Your task to perform on an android device: find snoozed emails in the gmail app Image 0: 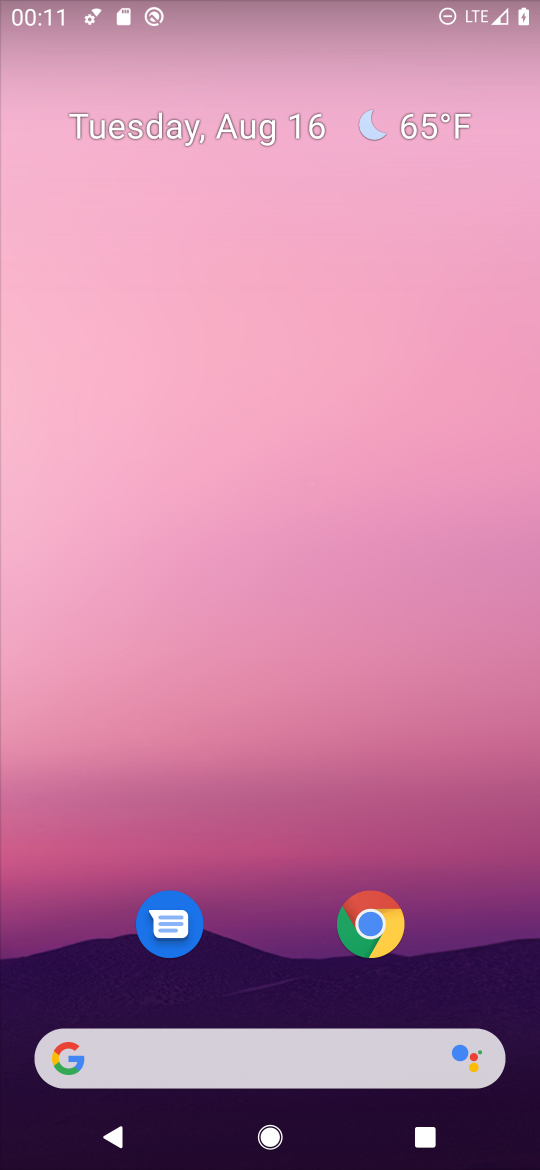
Step 0: drag from (292, 924) to (258, 257)
Your task to perform on an android device: find snoozed emails in the gmail app Image 1: 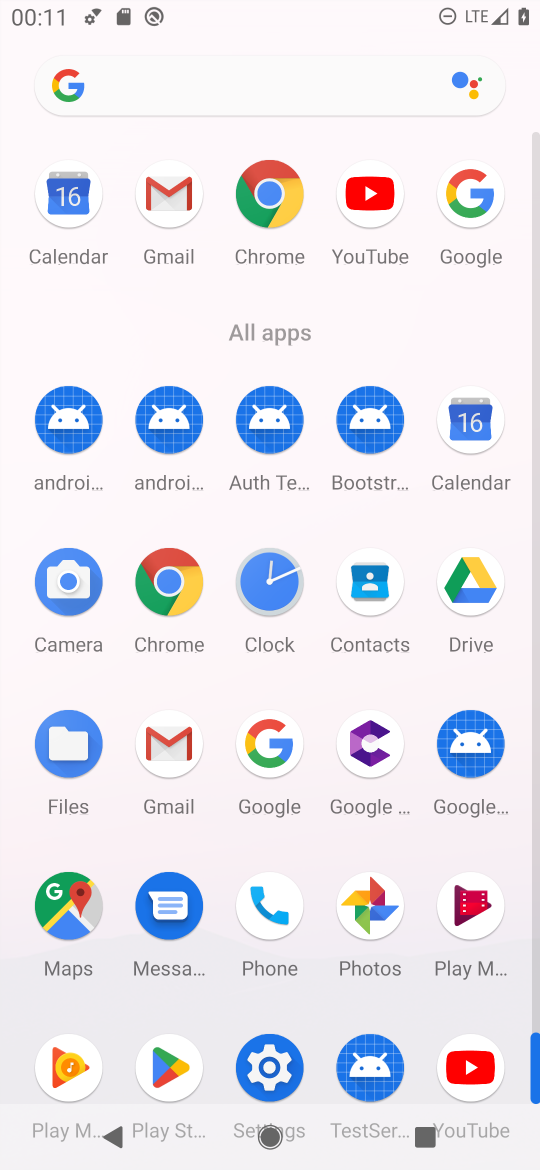
Step 1: click (156, 773)
Your task to perform on an android device: find snoozed emails in the gmail app Image 2: 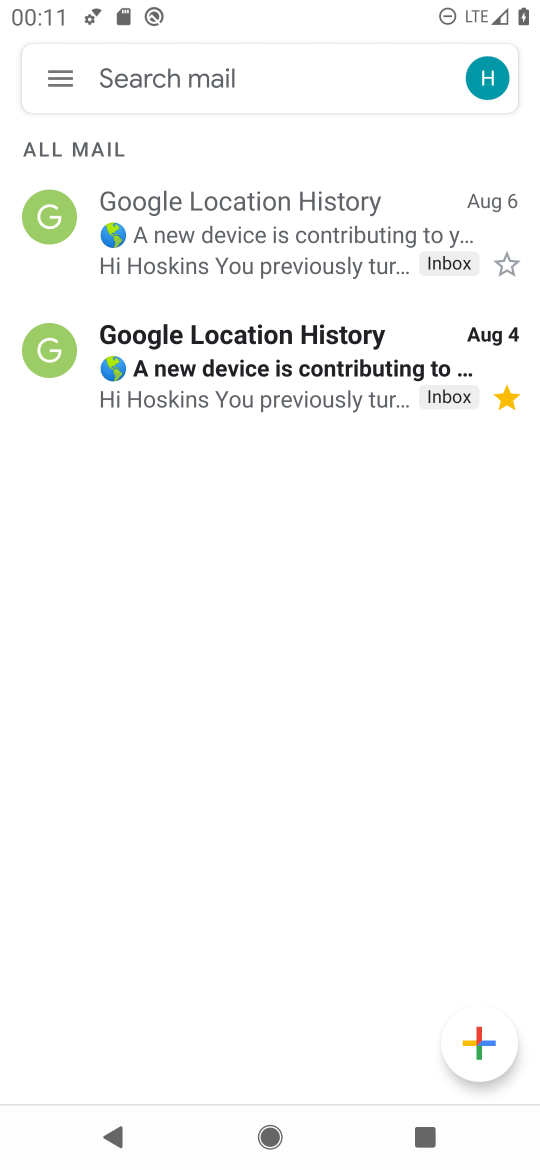
Step 2: click (47, 65)
Your task to perform on an android device: find snoozed emails in the gmail app Image 3: 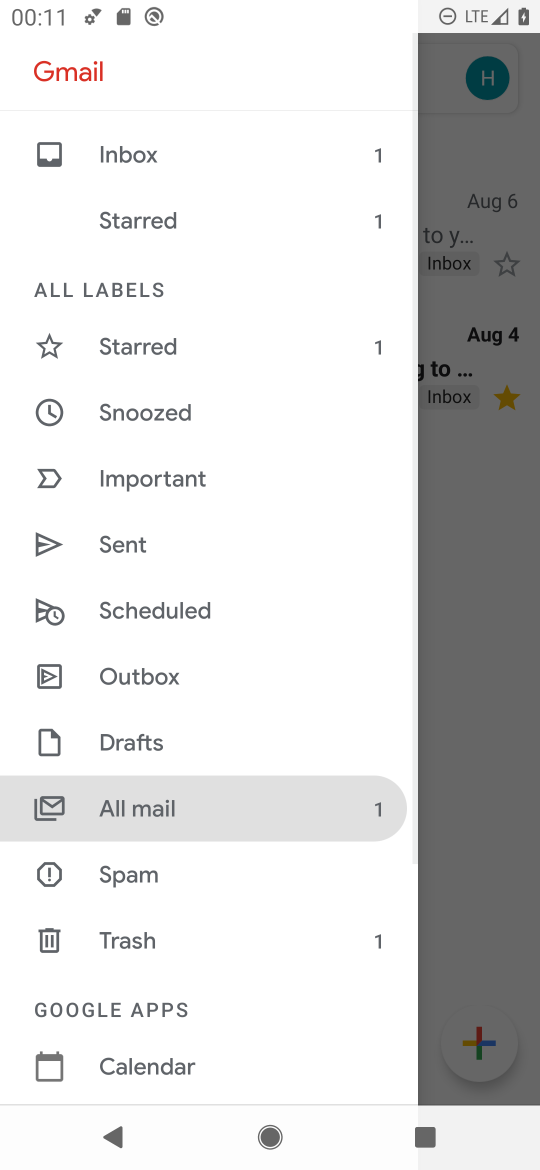
Step 3: click (191, 415)
Your task to perform on an android device: find snoozed emails in the gmail app Image 4: 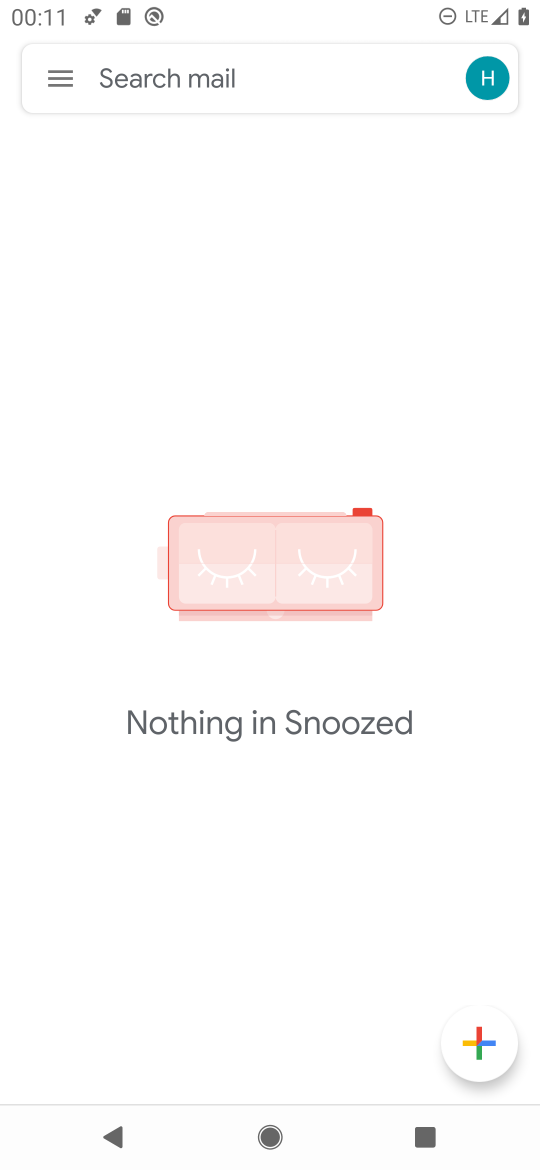
Step 4: task complete